Your task to perform on an android device: turn off location Image 0: 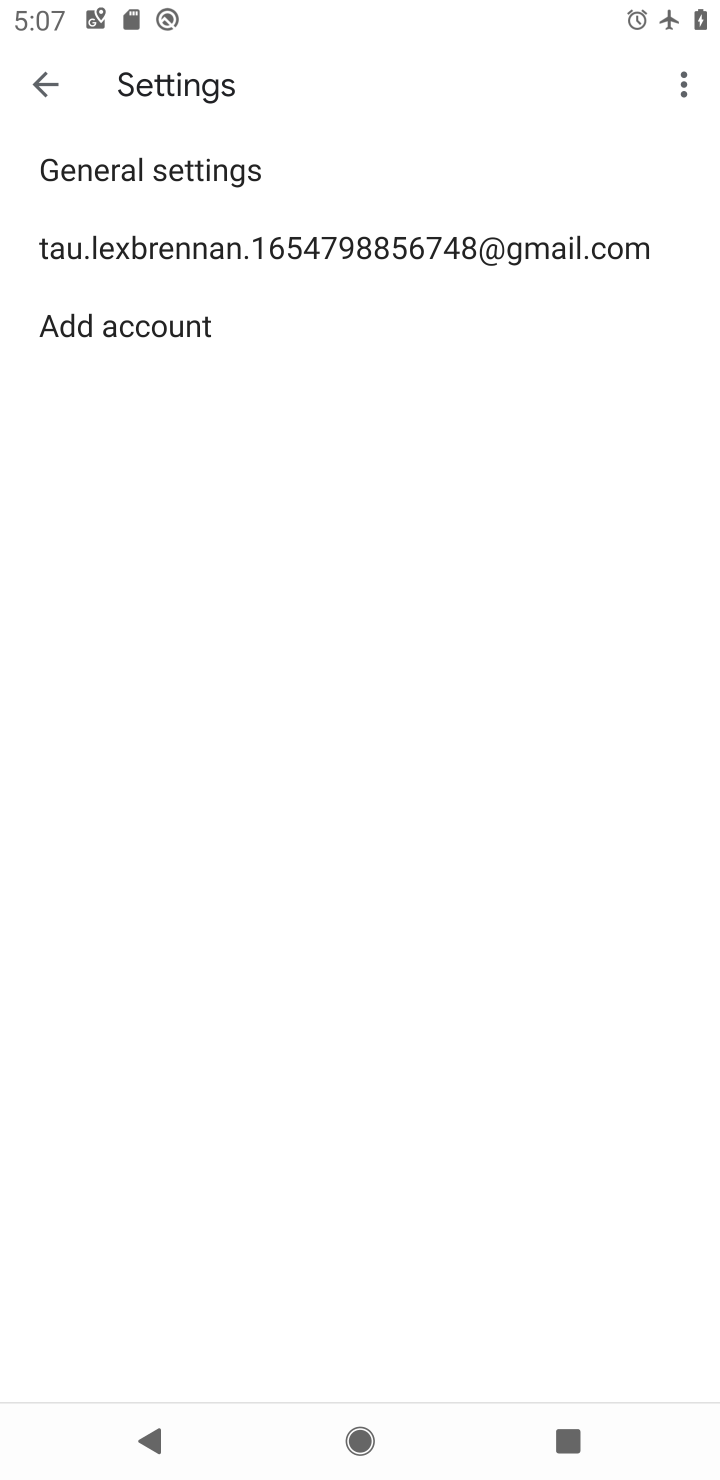
Step 0: press home button
Your task to perform on an android device: turn off location Image 1: 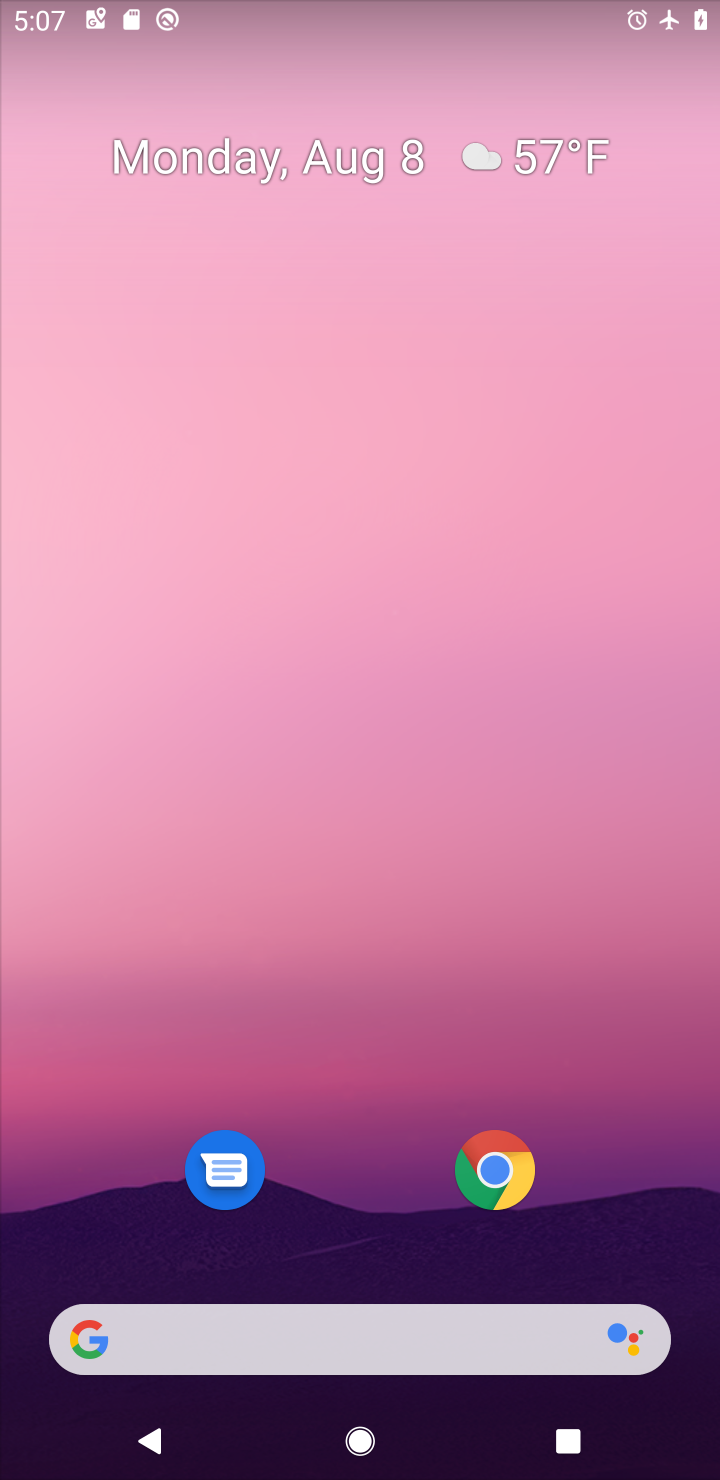
Step 1: drag from (408, 1212) to (406, 300)
Your task to perform on an android device: turn off location Image 2: 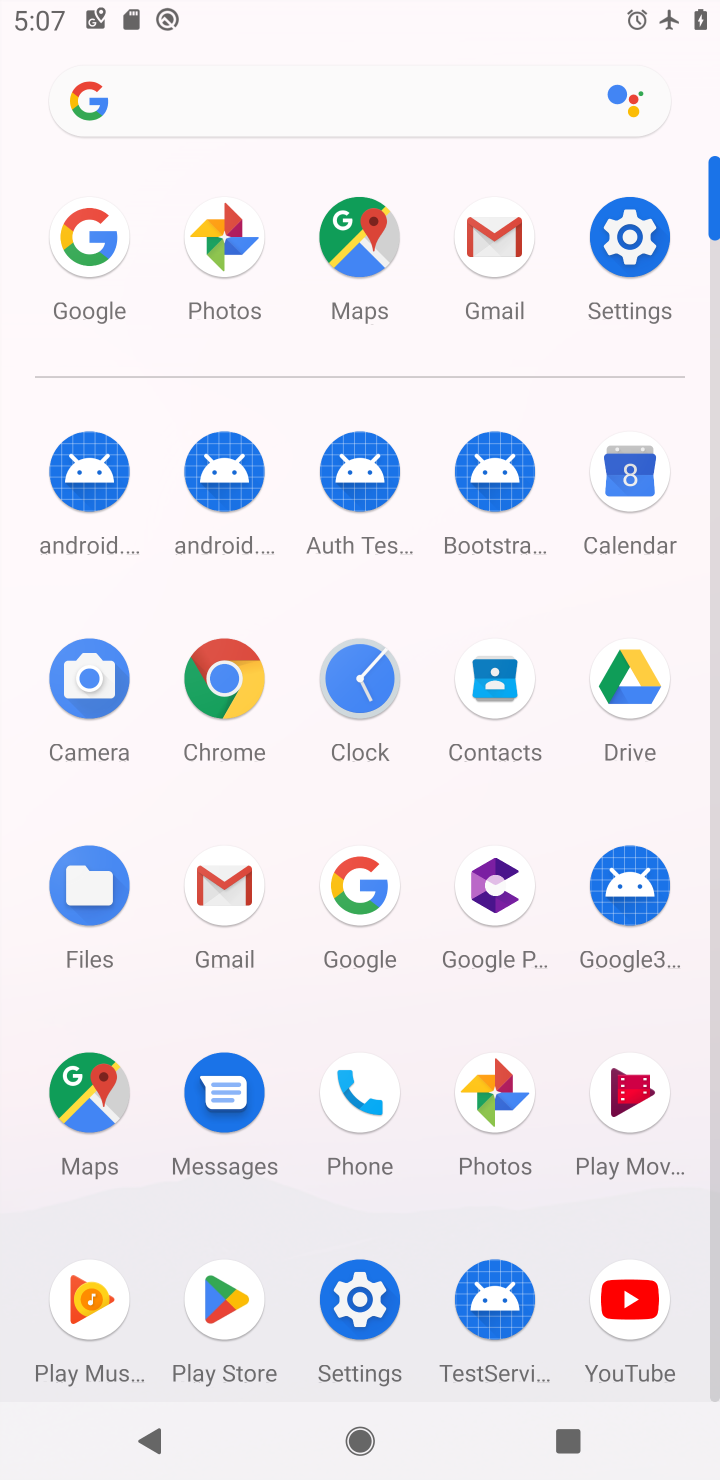
Step 2: click (611, 264)
Your task to perform on an android device: turn off location Image 3: 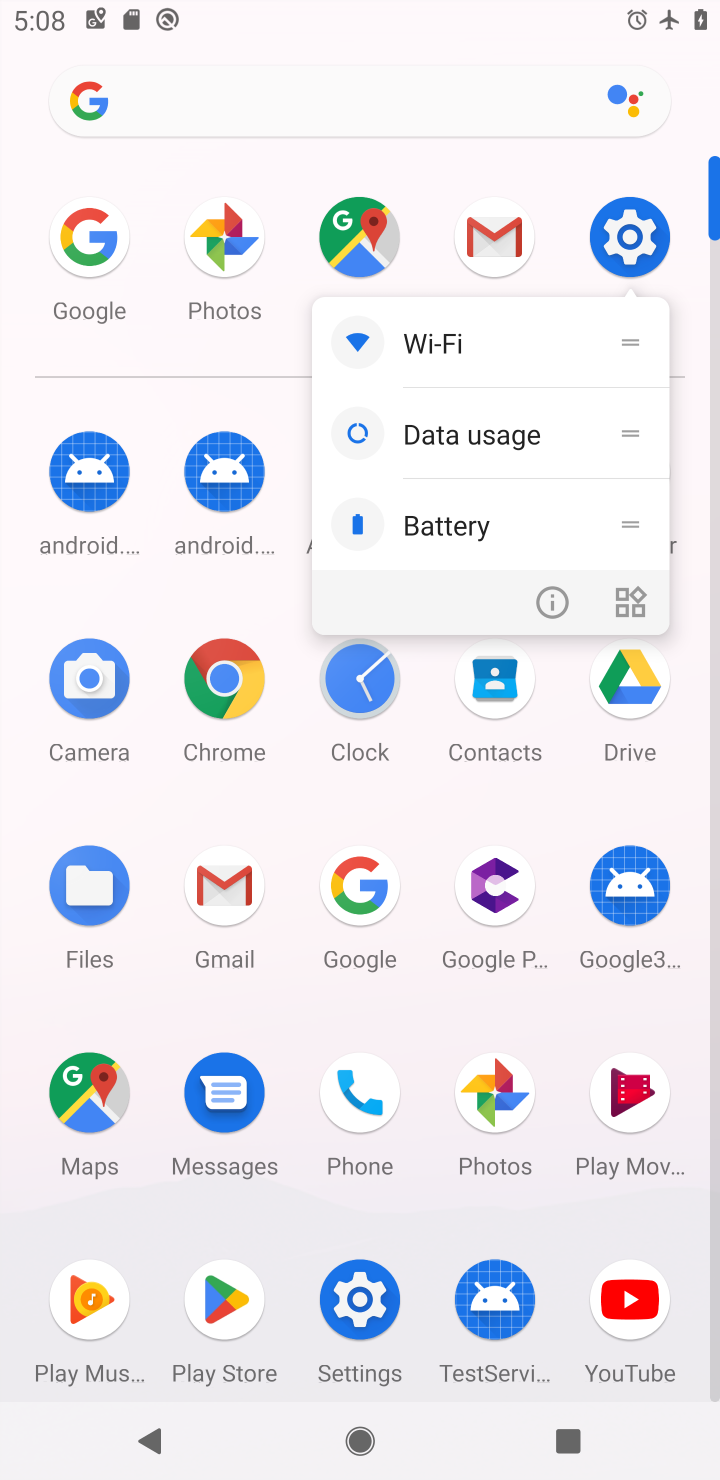
Step 3: click (611, 264)
Your task to perform on an android device: turn off location Image 4: 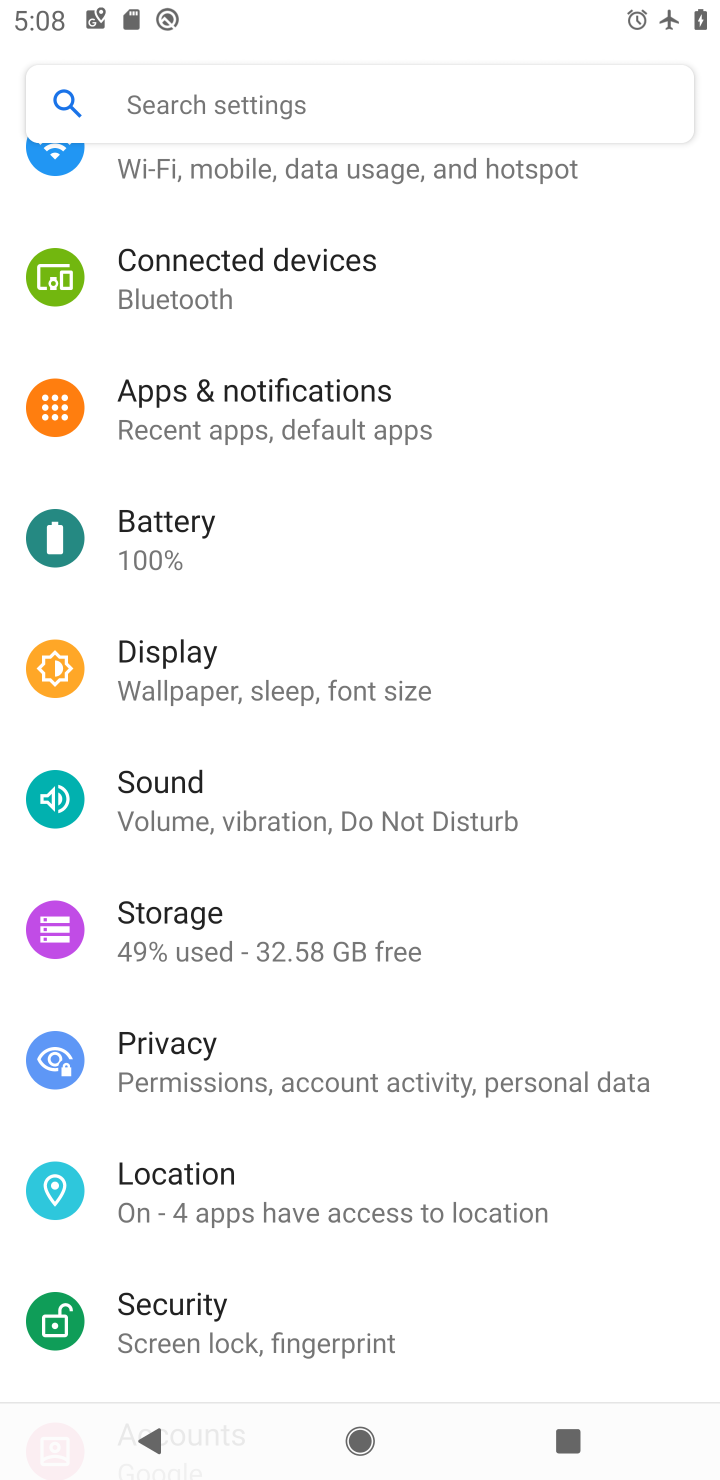
Step 4: click (265, 1182)
Your task to perform on an android device: turn off location Image 5: 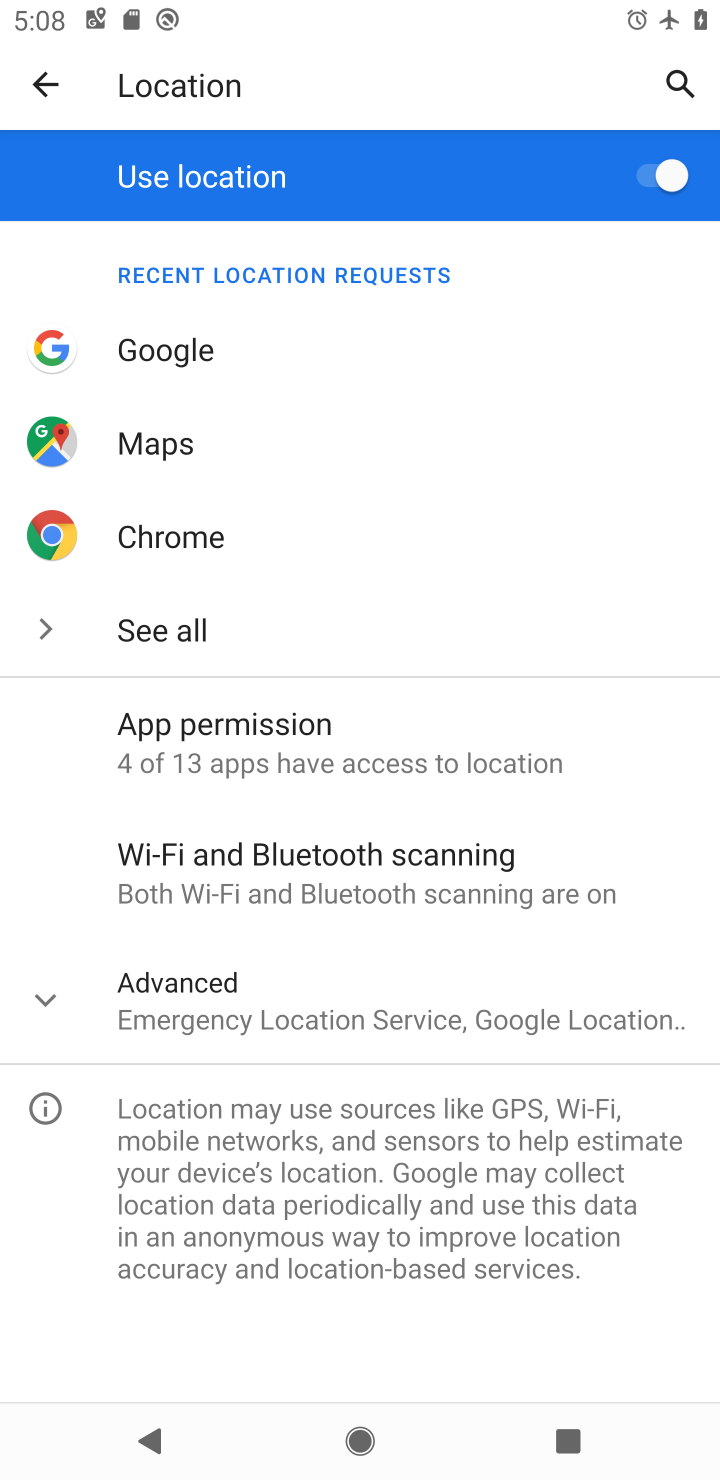
Step 5: click (656, 163)
Your task to perform on an android device: turn off location Image 6: 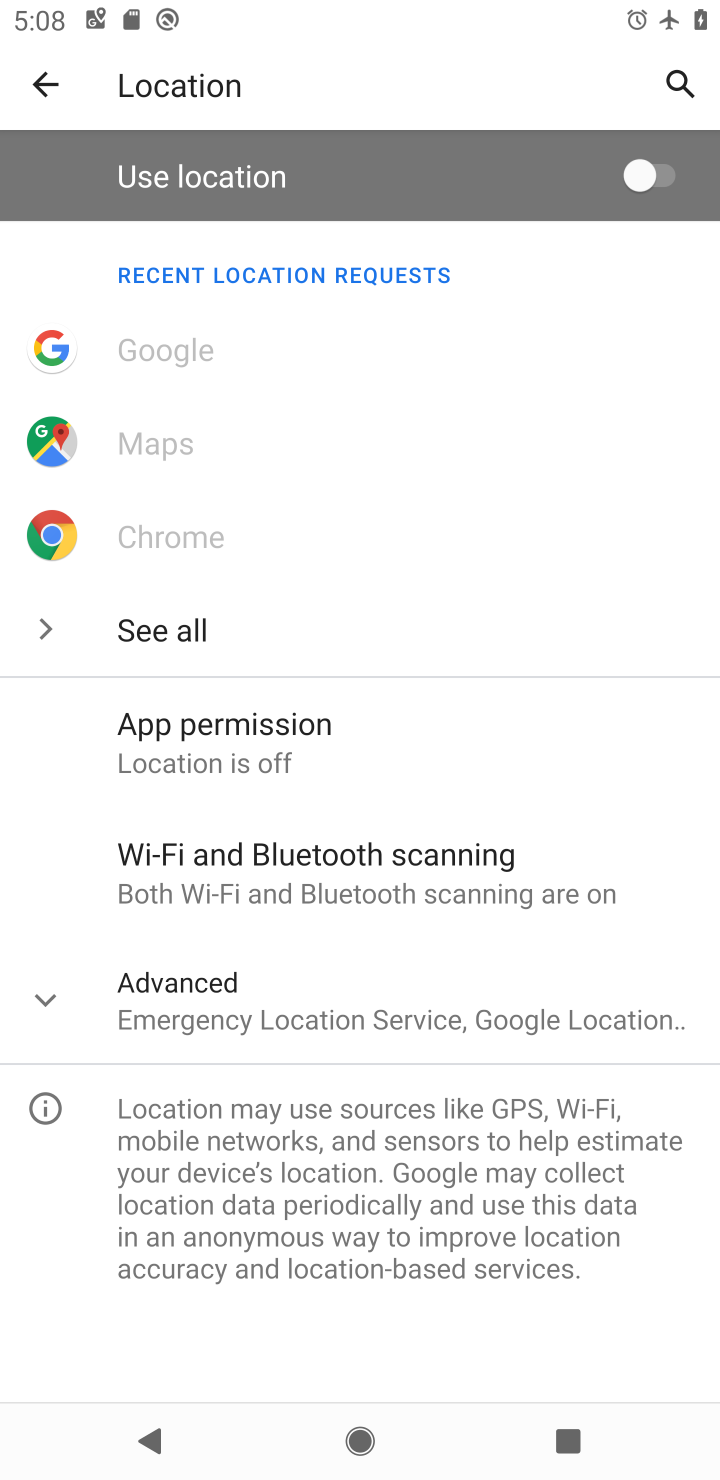
Step 6: task complete